Your task to perform on an android device: Clear the cart on target.com. Search for panasonic triple a on target.com, select the first entry, and add it to the cart. Image 0: 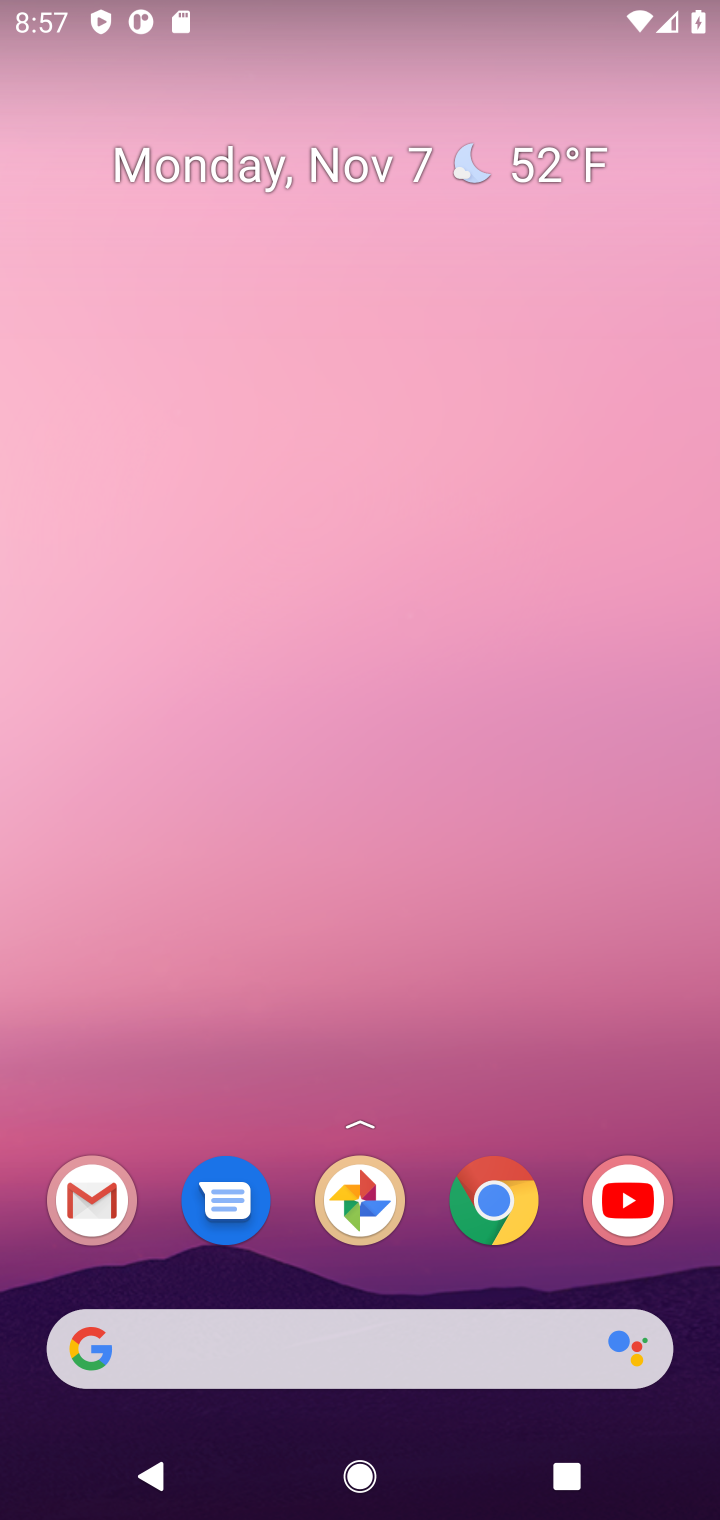
Step 0: click (487, 1210)
Your task to perform on an android device: Clear the cart on target.com. Search for panasonic triple a on target.com, select the first entry, and add it to the cart. Image 1: 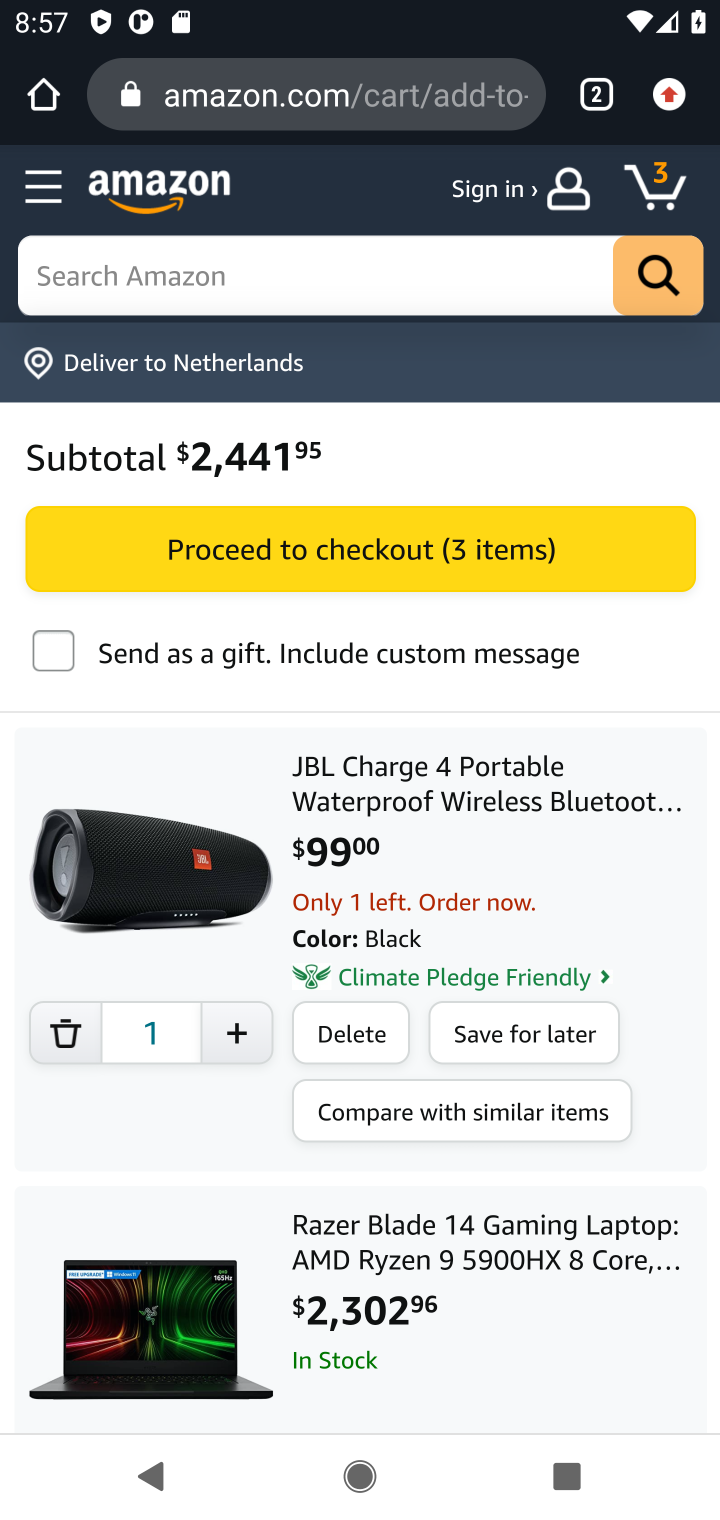
Step 1: click (444, 291)
Your task to perform on an android device: Clear the cart on target.com. Search for panasonic triple a on target.com, select the first entry, and add it to the cart. Image 2: 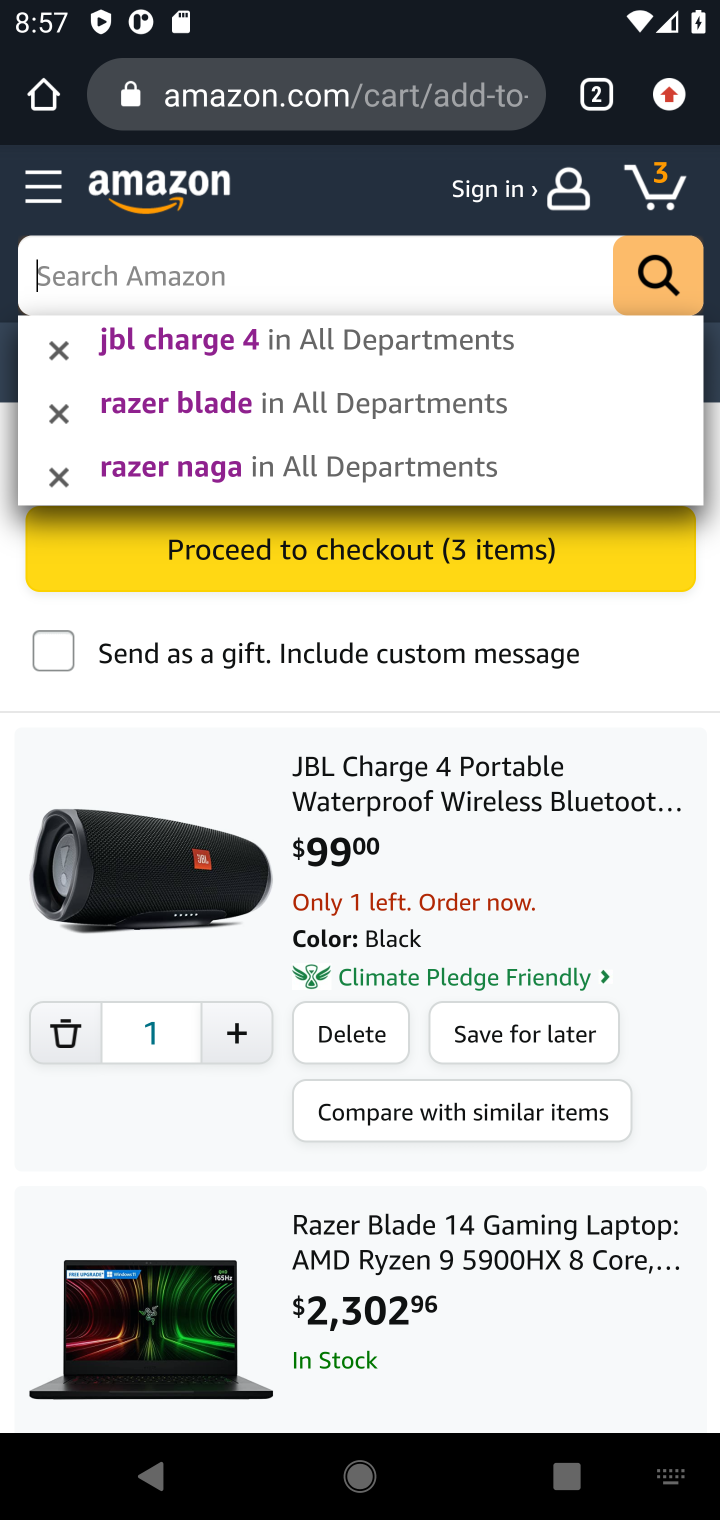
Step 2: press enter
Your task to perform on an android device: Clear the cart on target.com. Search for panasonic triple a on target.com, select the first entry, and add it to the cart. Image 3: 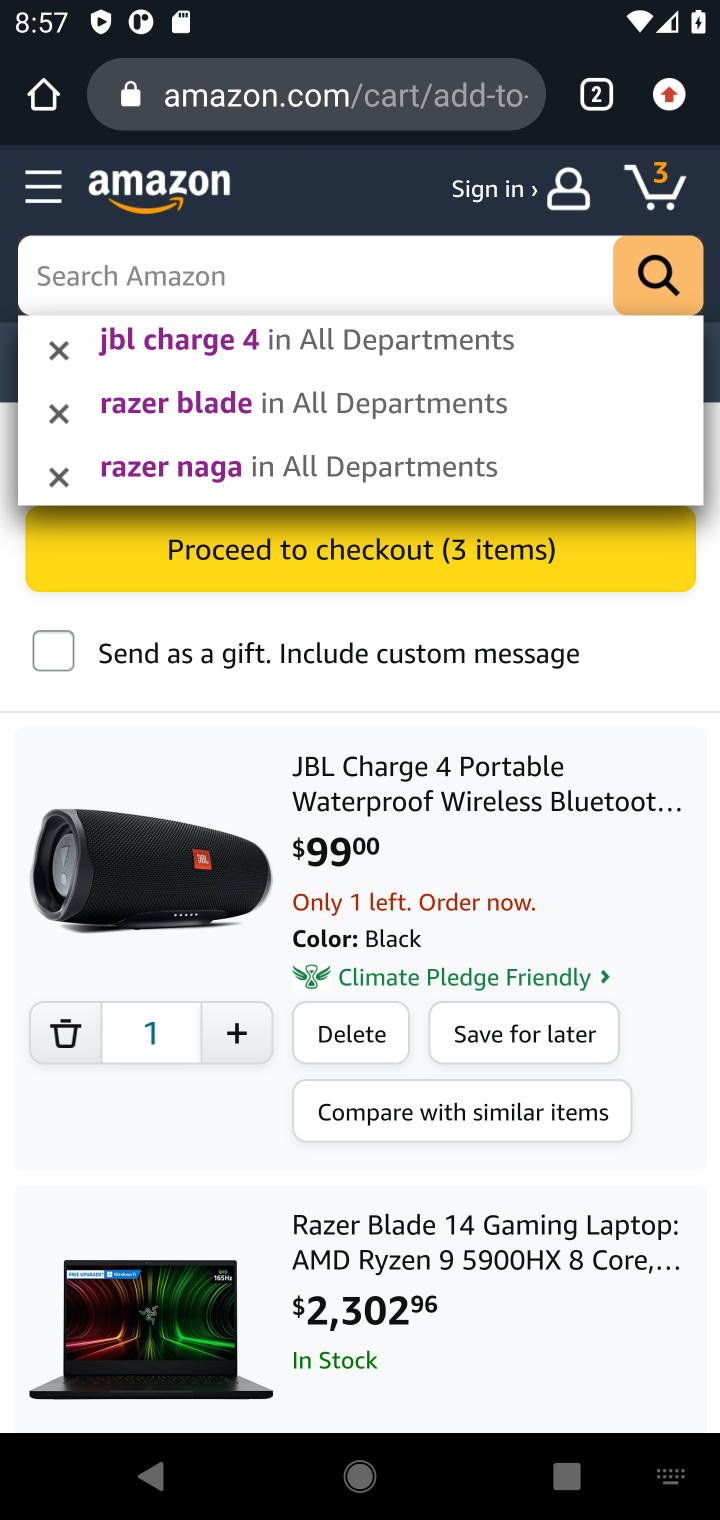
Step 3: type "target.com"
Your task to perform on an android device: Clear the cart on target.com. Search for panasonic triple a on target.com, select the first entry, and add it to the cart. Image 4: 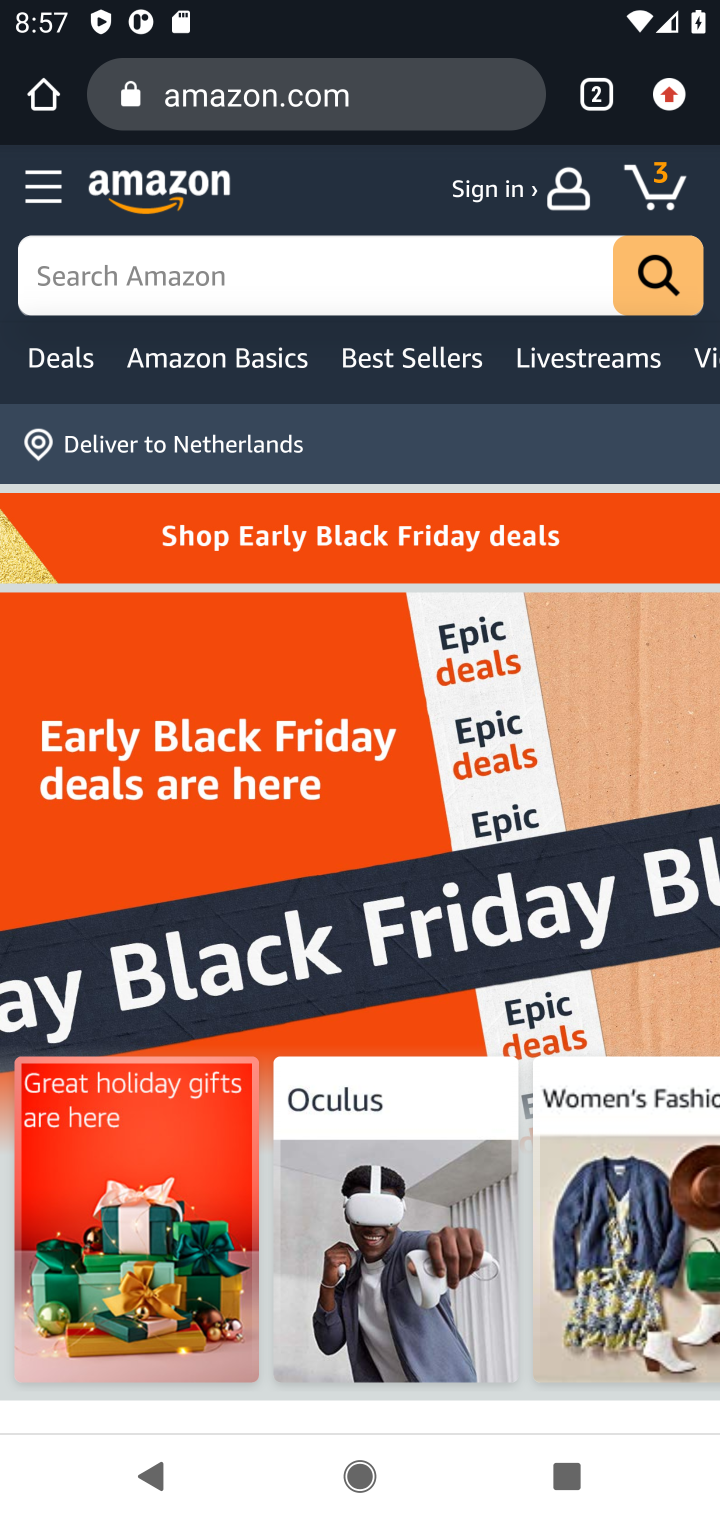
Step 4: click (476, 274)
Your task to perform on an android device: Clear the cart on target.com. Search for panasonic triple a on target.com, select the first entry, and add it to the cart. Image 5: 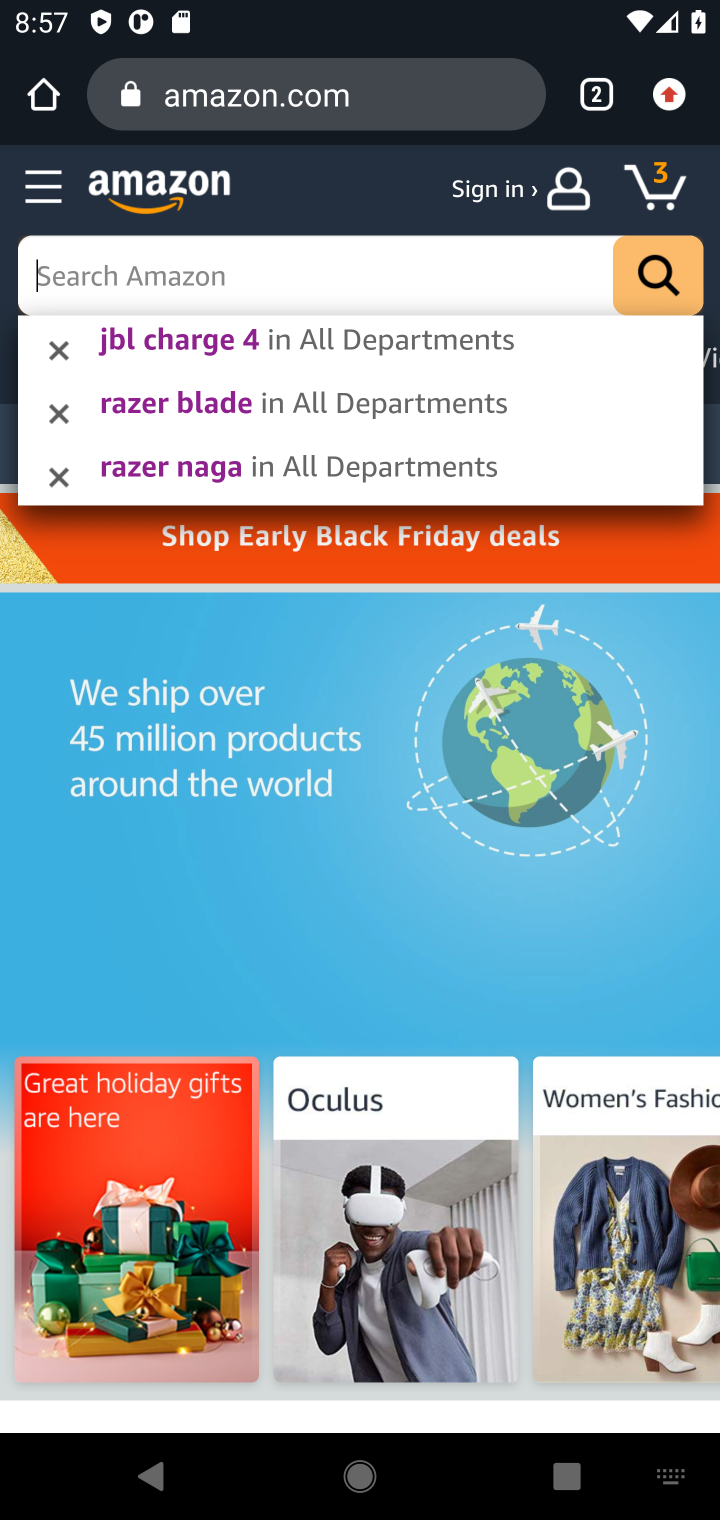
Step 5: click (450, 78)
Your task to perform on an android device: Clear the cart on target.com. Search for panasonic triple a on target.com, select the first entry, and add it to the cart. Image 6: 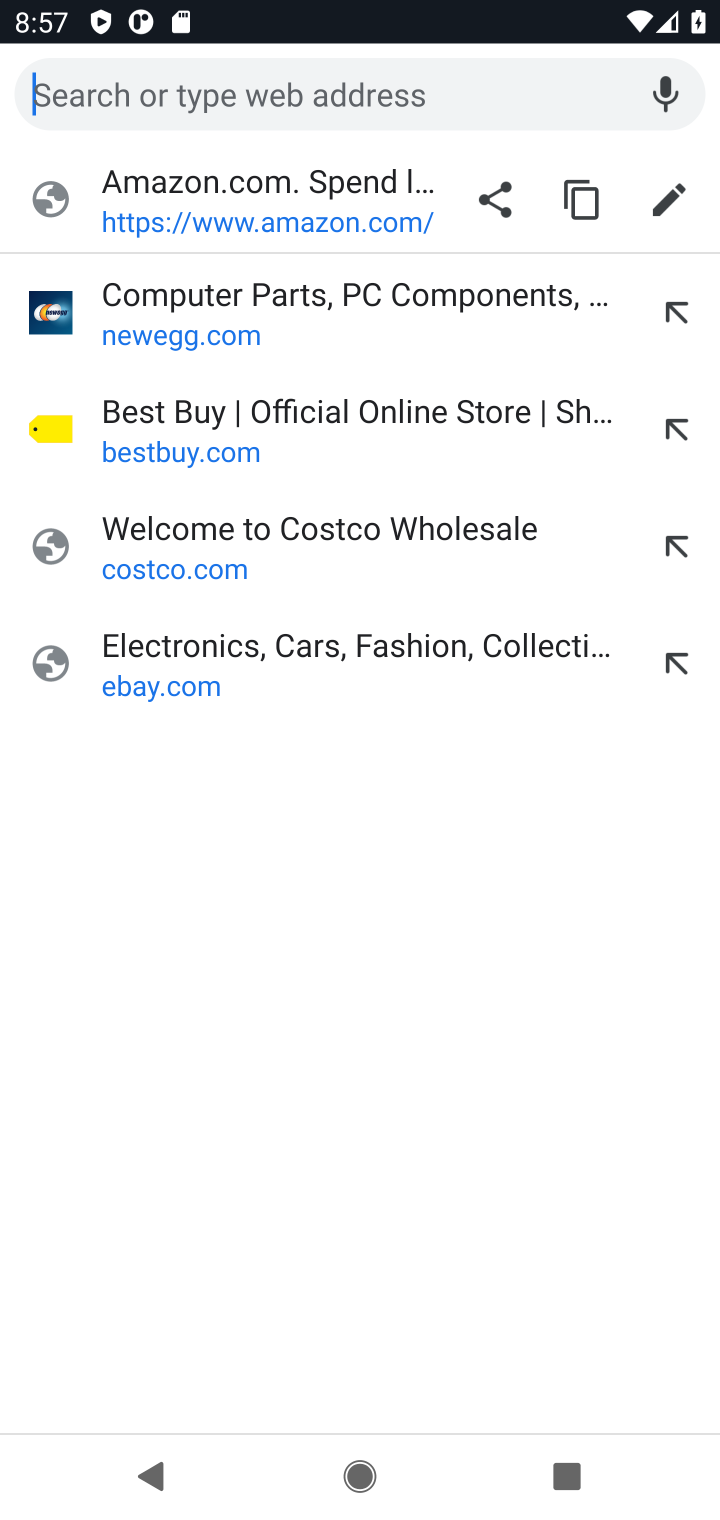
Step 6: type "target.com"
Your task to perform on an android device: Clear the cart on target.com. Search for panasonic triple a on target.com, select the first entry, and add it to the cart. Image 7: 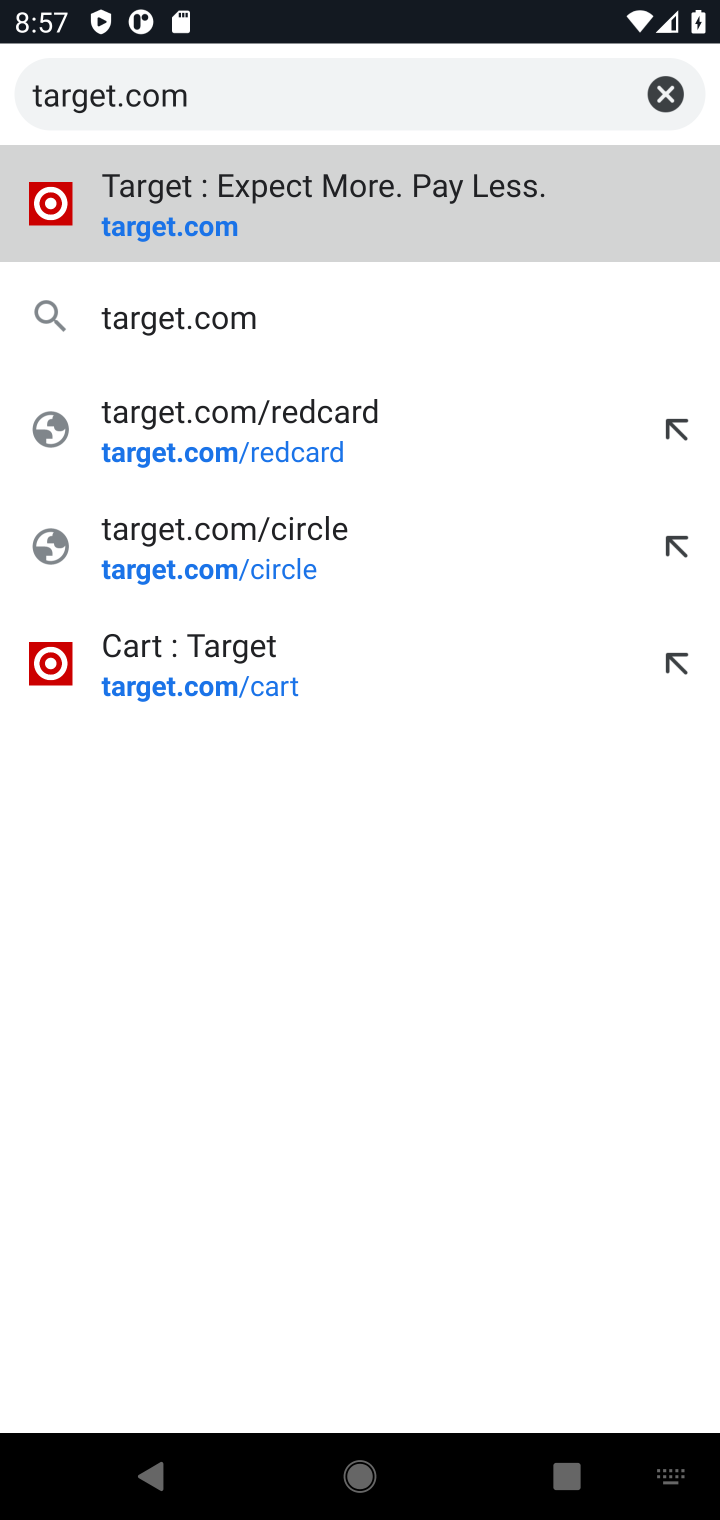
Step 7: click (206, 321)
Your task to perform on an android device: Clear the cart on target.com. Search for panasonic triple a on target.com, select the first entry, and add it to the cart. Image 8: 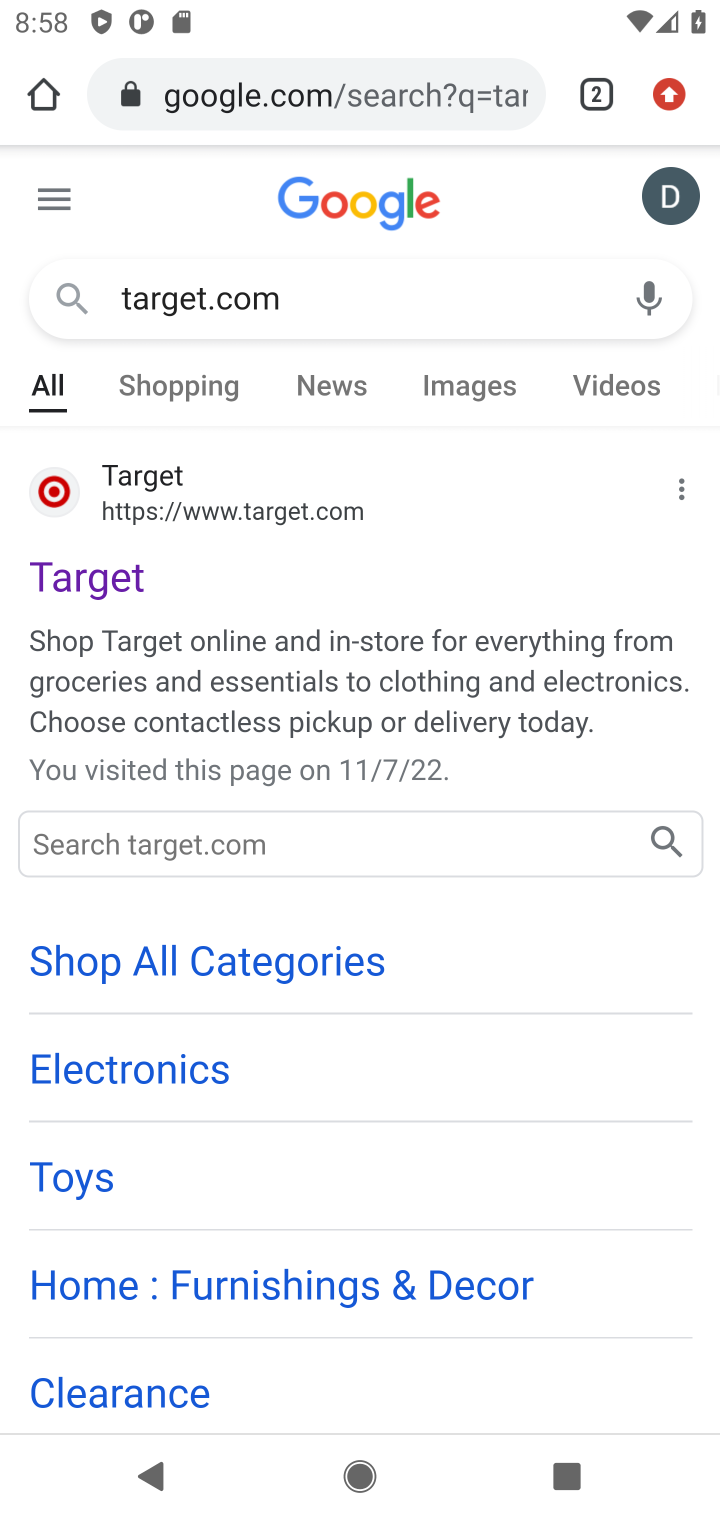
Step 8: click (240, 506)
Your task to perform on an android device: Clear the cart on target.com. Search for panasonic triple a on target.com, select the first entry, and add it to the cart. Image 9: 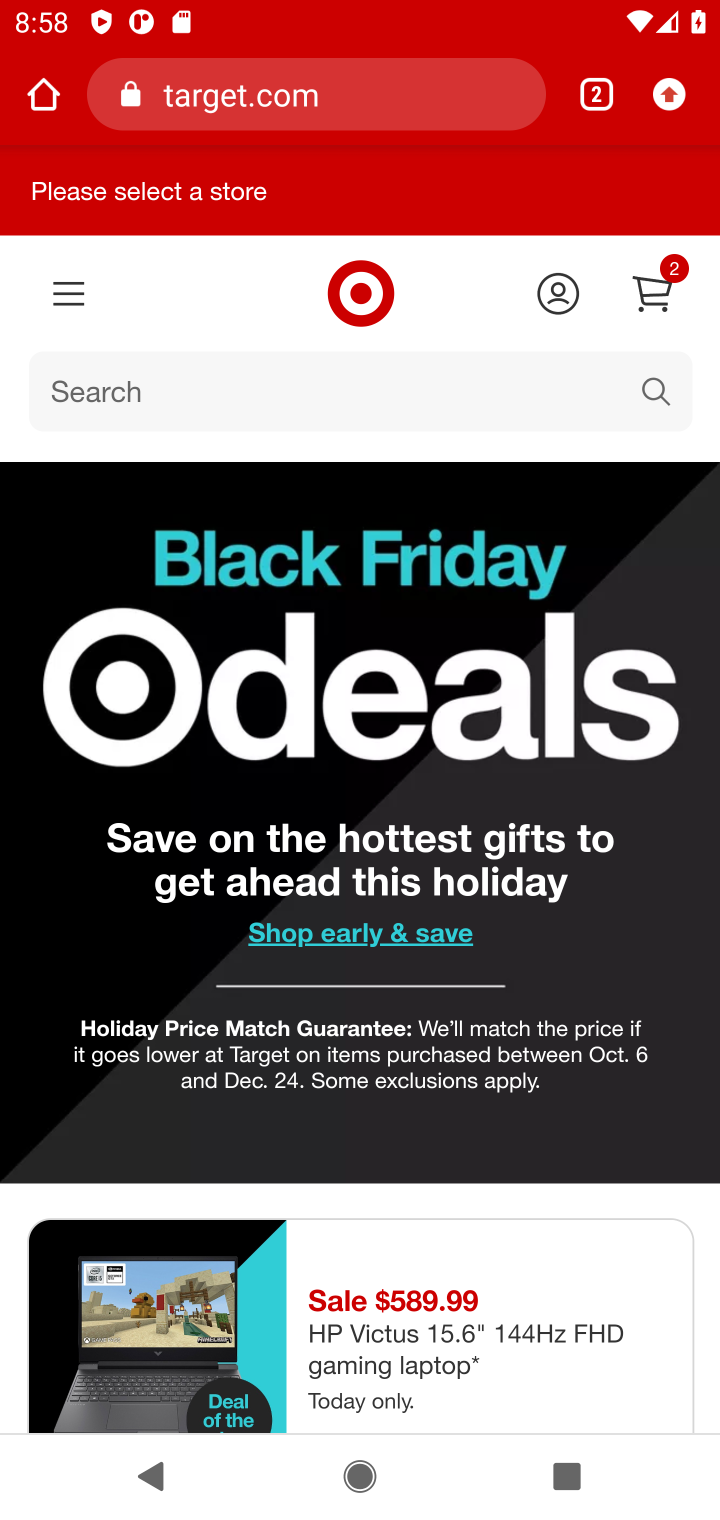
Step 9: click (651, 294)
Your task to perform on an android device: Clear the cart on target.com. Search for panasonic triple a on target.com, select the first entry, and add it to the cart. Image 10: 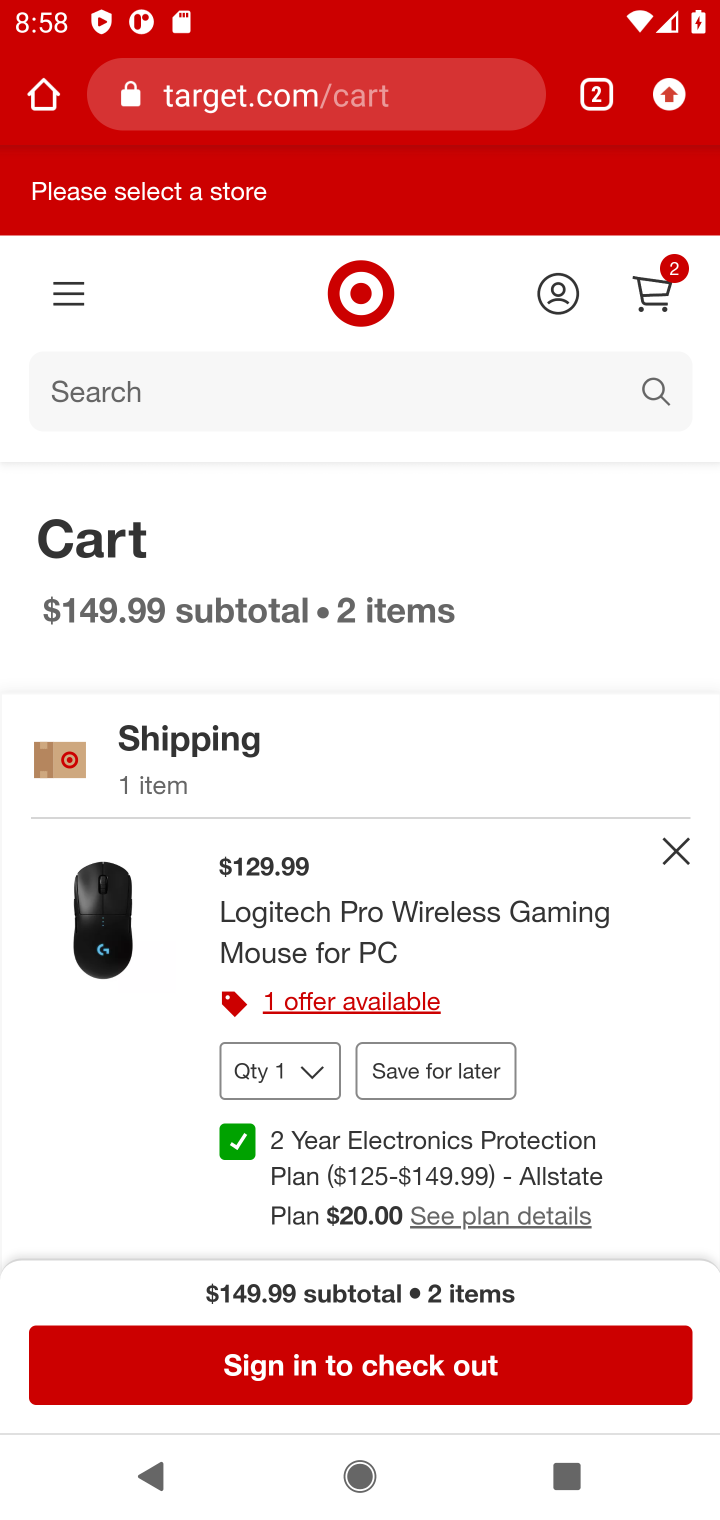
Step 10: click (684, 854)
Your task to perform on an android device: Clear the cart on target.com. Search for panasonic triple a on target.com, select the first entry, and add it to the cart. Image 11: 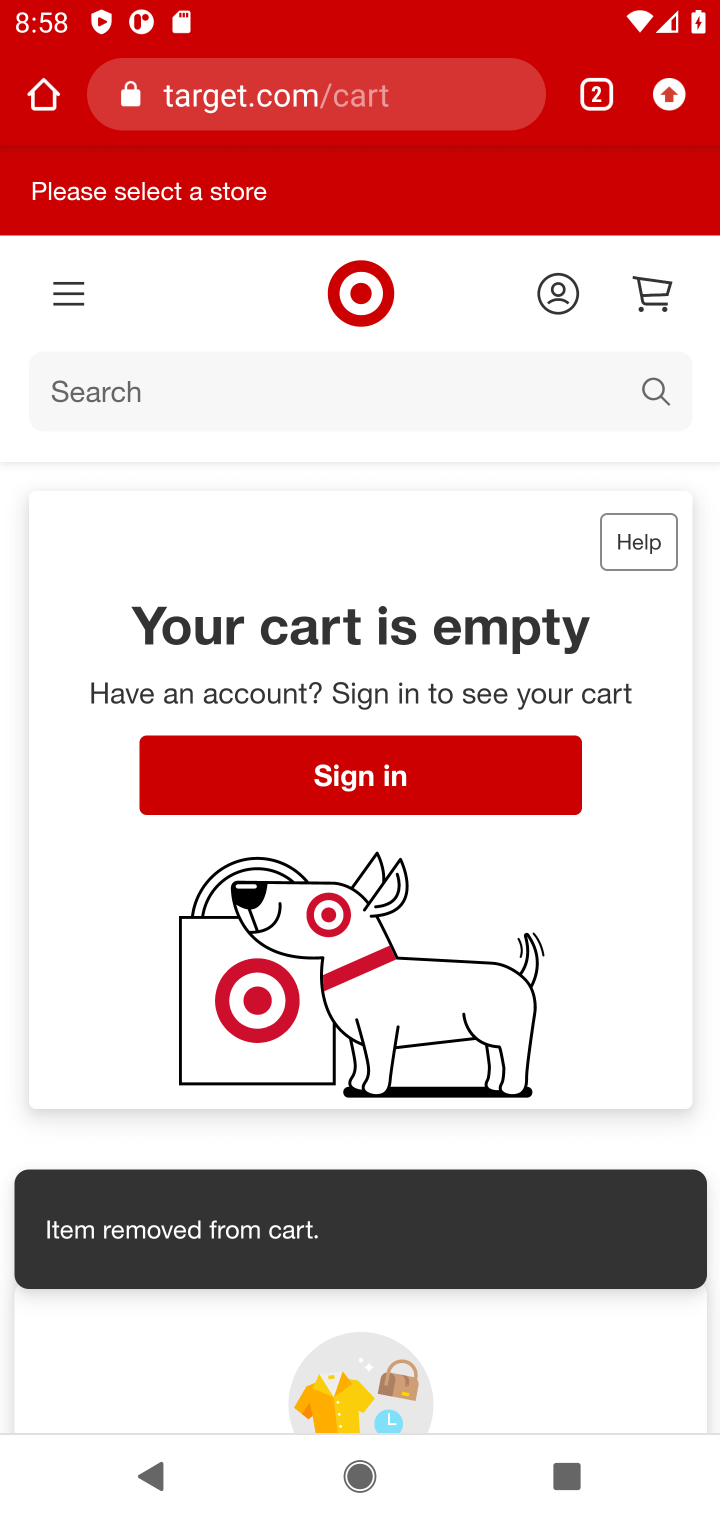
Step 11: click (665, 391)
Your task to perform on an android device: Clear the cart on target.com. Search for panasonic triple a on target.com, select the first entry, and add it to the cart. Image 12: 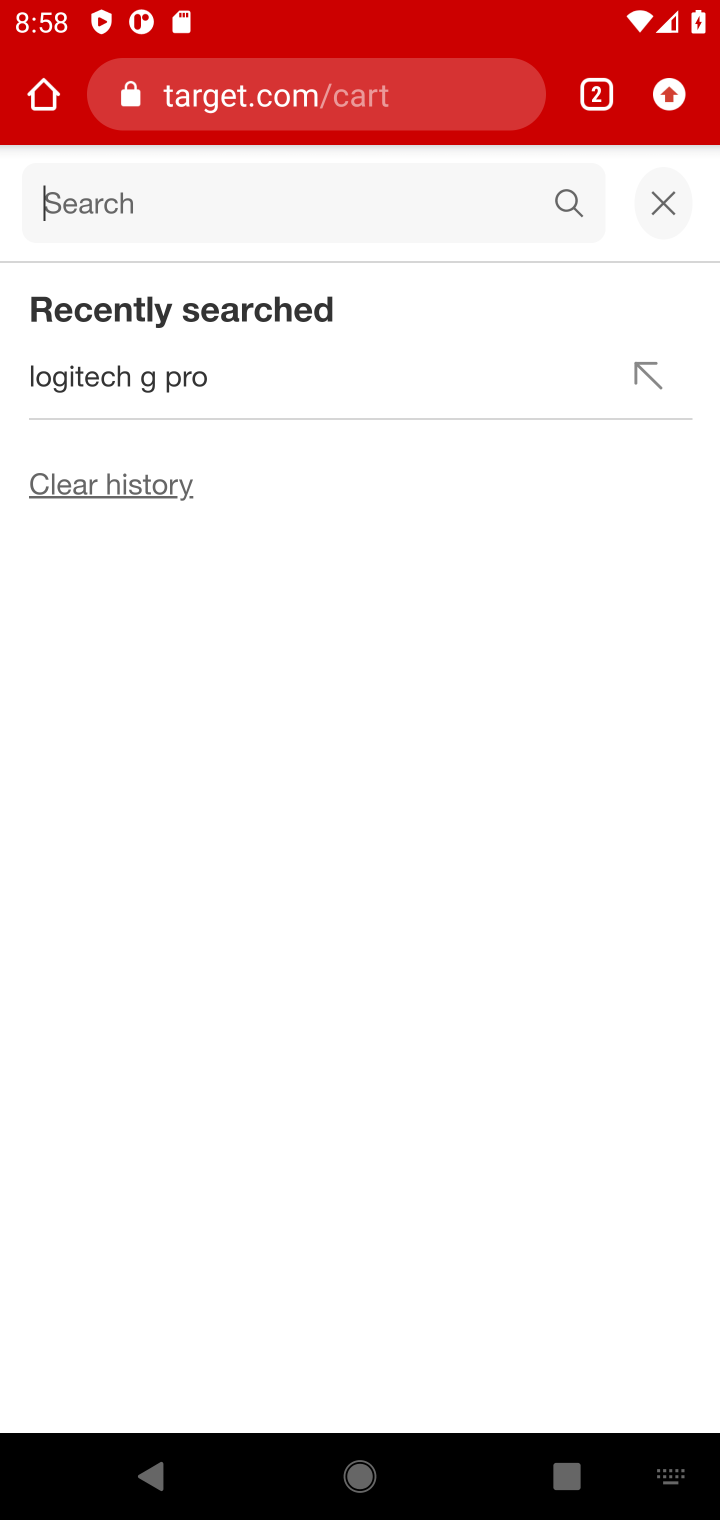
Step 12: type "panasonic triple a"
Your task to perform on an android device: Clear the cart on target.com. Search for panasonic triple a on target.com, select the first entry, and add it to the cart. Image 13: 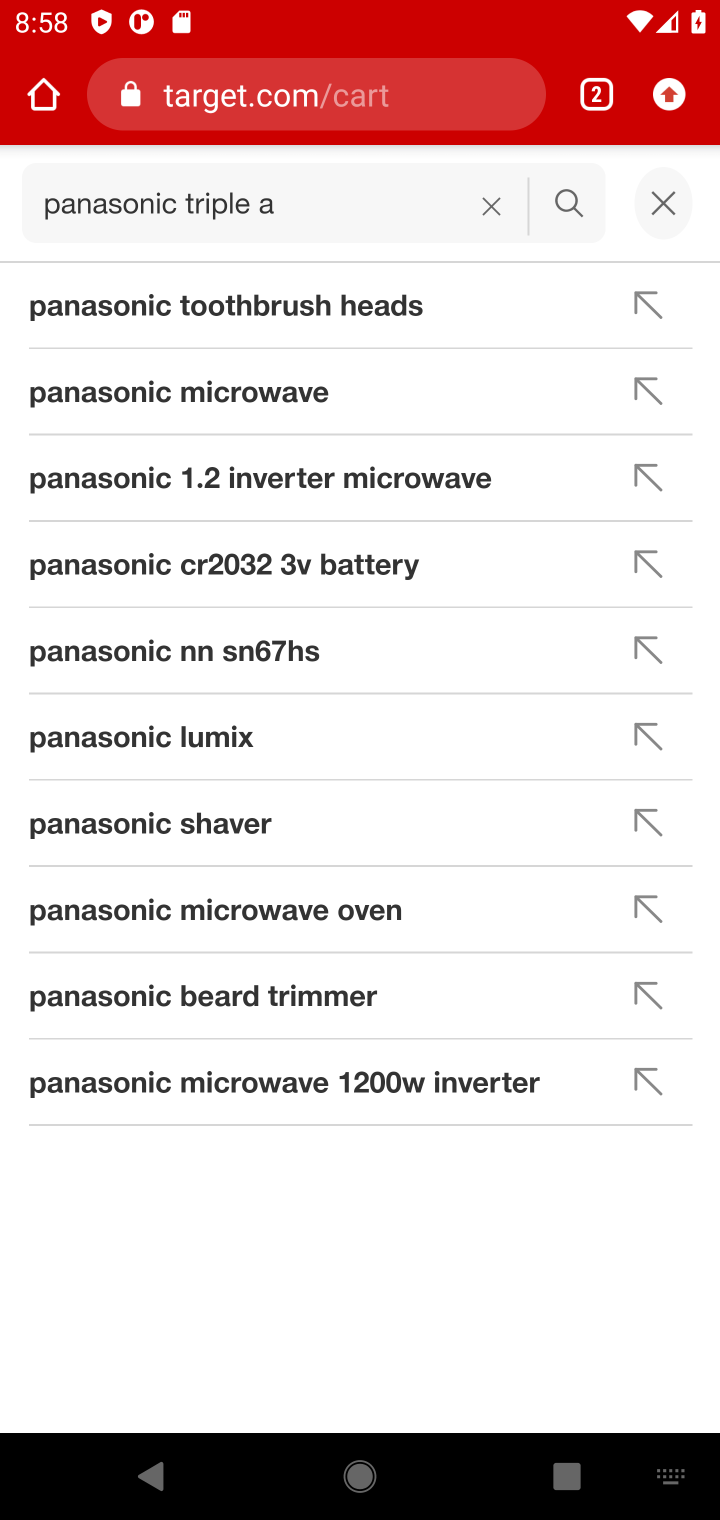
Step 13: click (531, 1267)
Your task to perform on an android device: Clear the cart on target.com. Search for panasonic triple a on target.com, select the first entry, and add it to the cart. Image 14: 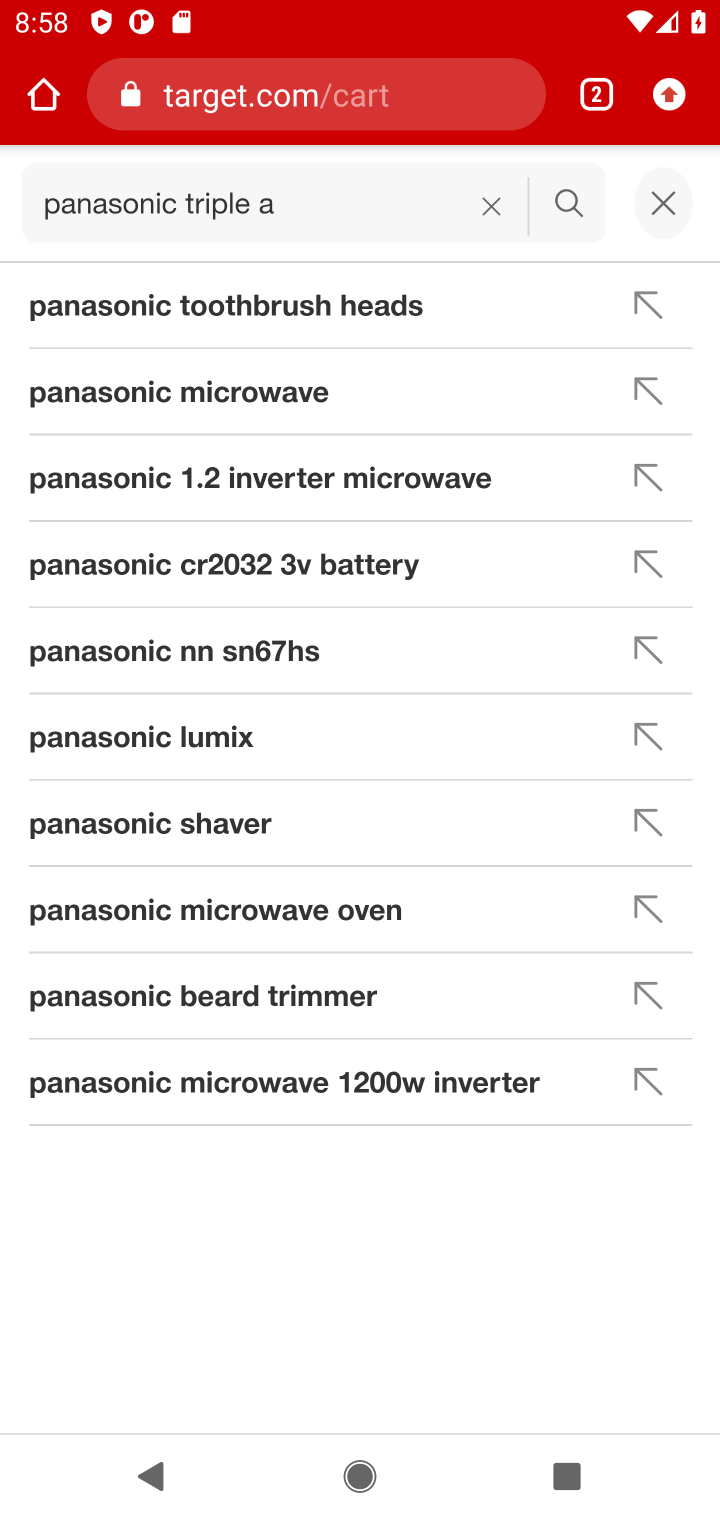
Step 14: click (496, 1247)
Your task to perform on an android device: Clear the cart on target.com. Search for panasonic triple a on target.com, select the first entry, and add it to the cart. Image 15: 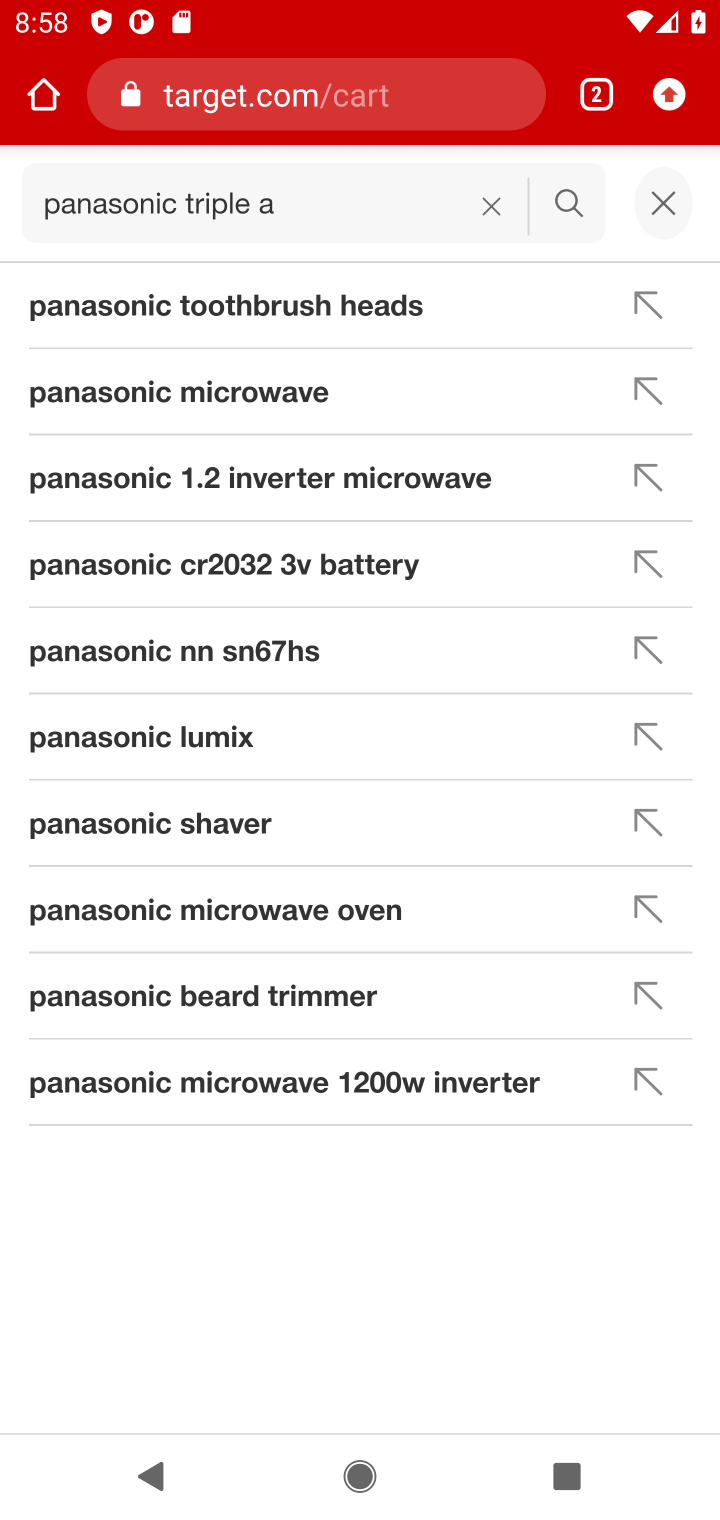
Step 15: click (415, 203)
Your task to perform on an android device: Clear the cart on target.com. Search for panasonic triple a on target.com, select the first entry, and add it to the cart. Image 16: 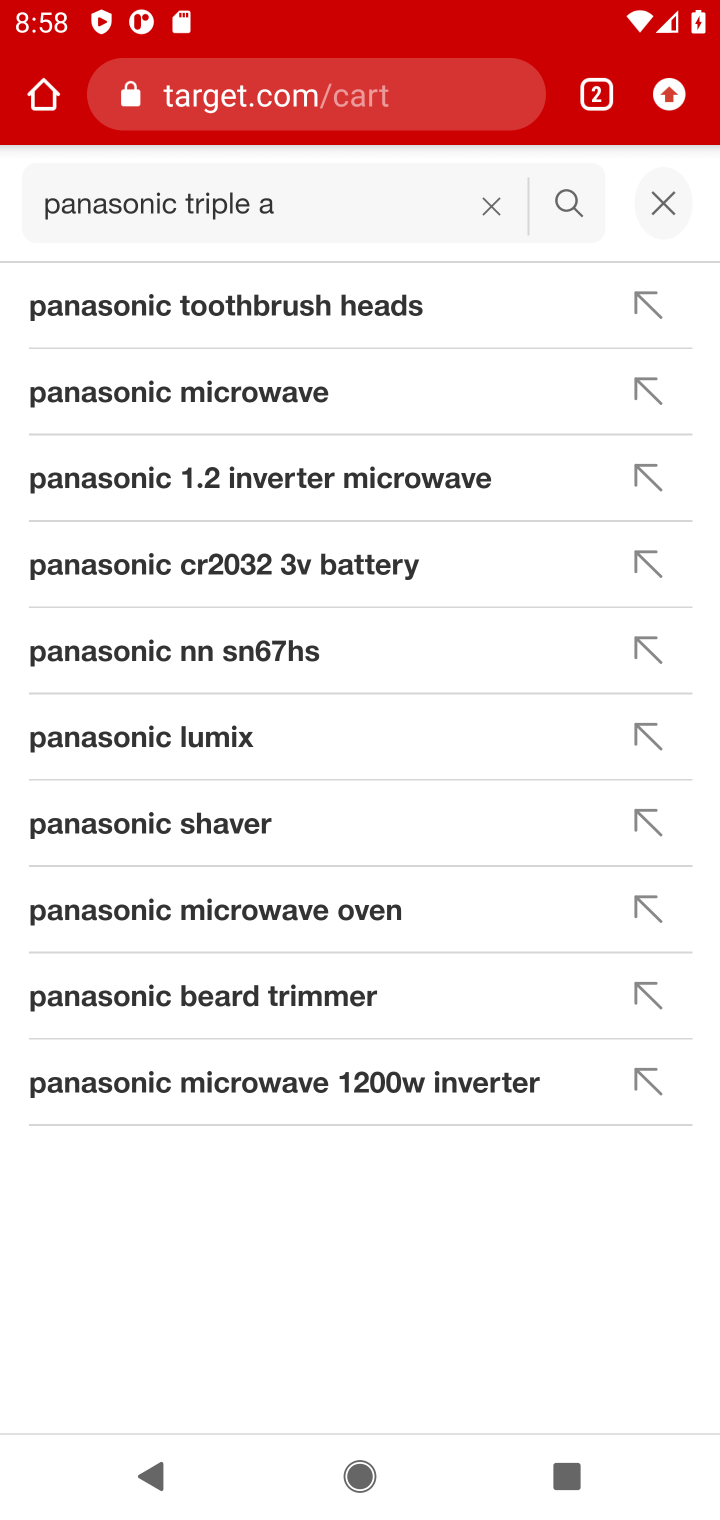
Step 16: click (627, 1287)
Your task to perform on an android device: Clear the cart on target.com. Search for panasonic triple a on target.com, select the first entry, and add it to the cart. Image 17: 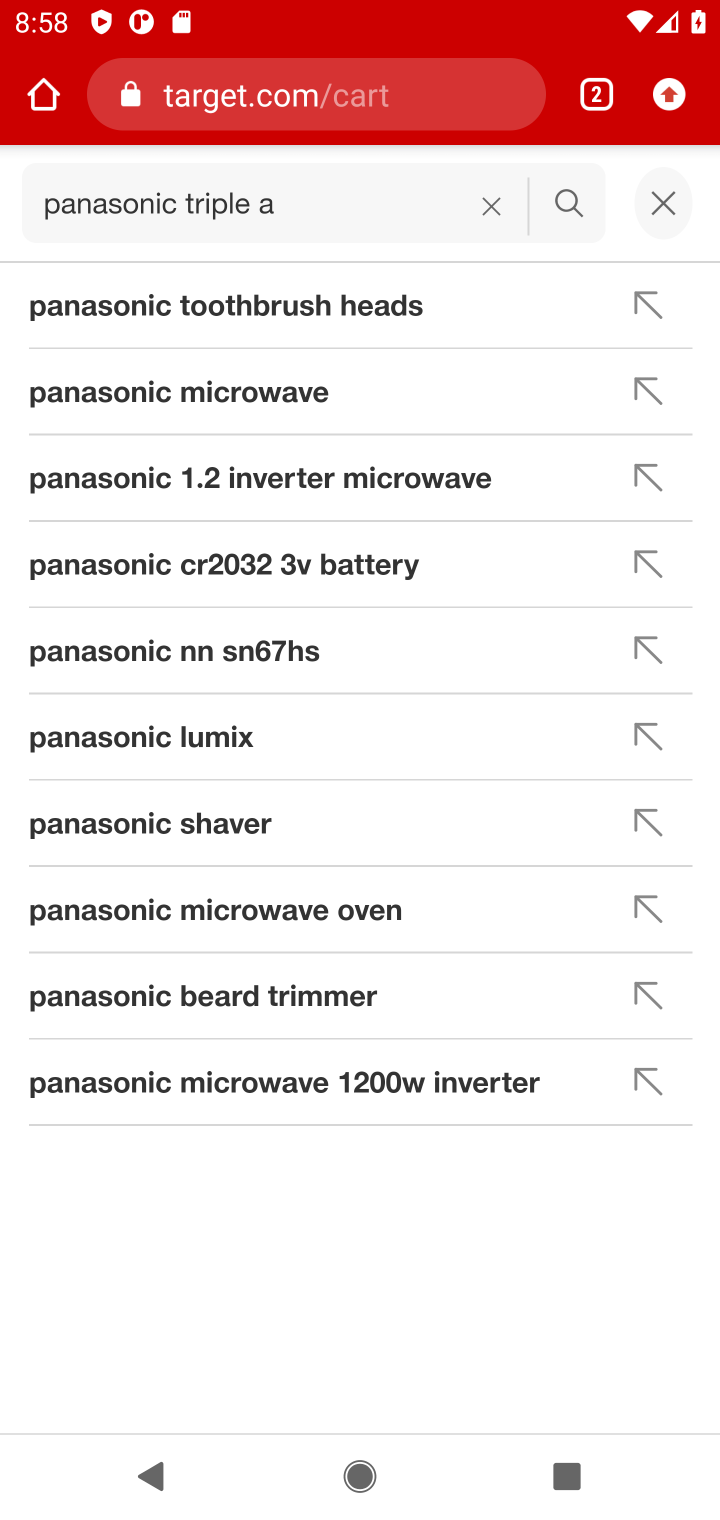
Step 17: click (627, 1287)
Your task to perform on an android device: Clear the cart on target.com. Search for panasonic triple a on target.com, select the first entry, and add it to the cart. Image 18: 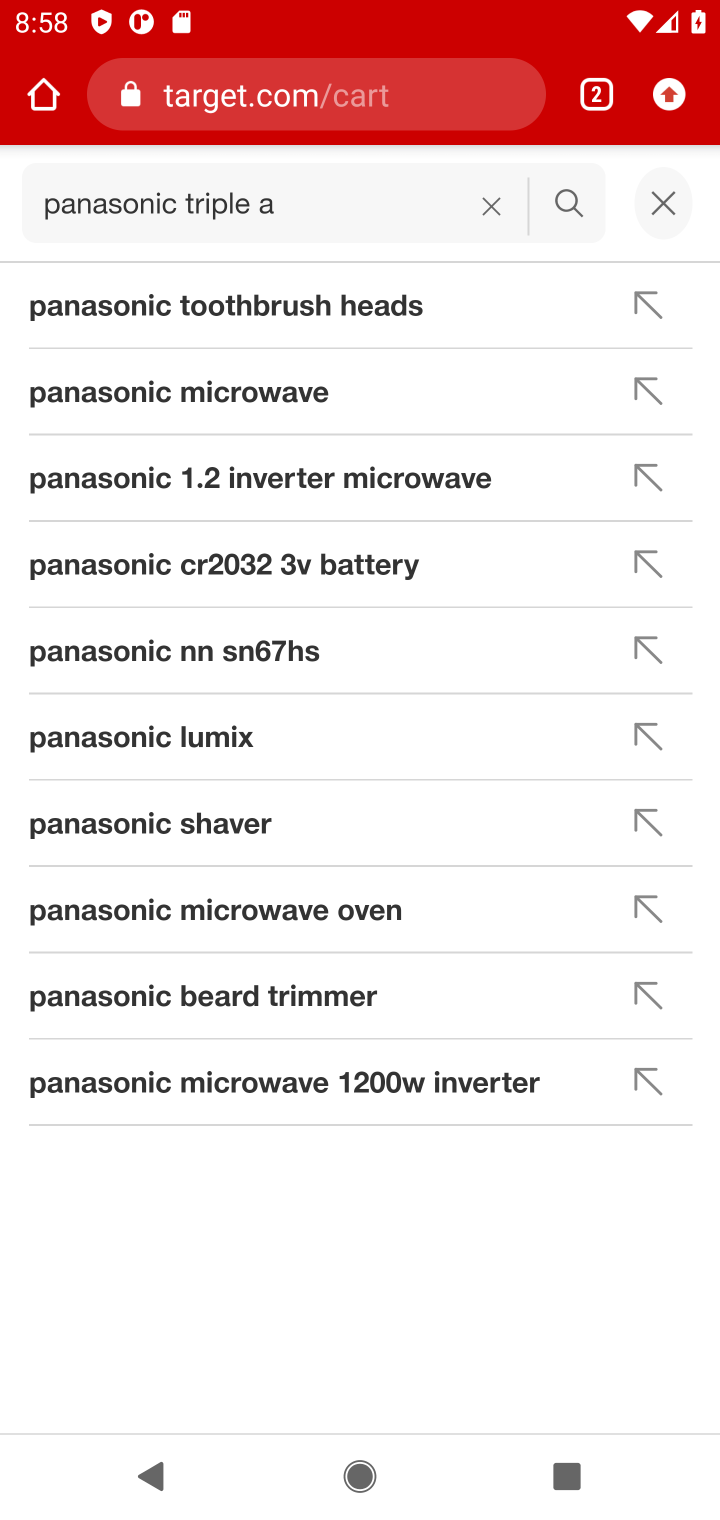
Step 18: task complete